Your task to perform on an android device: move an email to a new category in the gmail app Image 0: 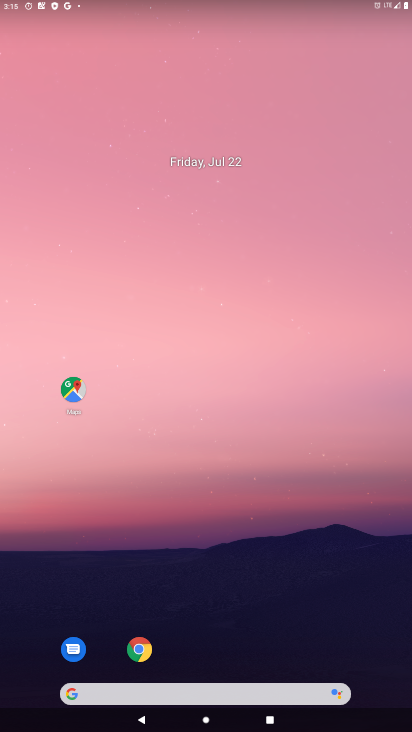
Step 0: drag from (335, 500) to (331, 27)
Your task to perform on an android device: move an email to a new category in the gmail app Image 1: 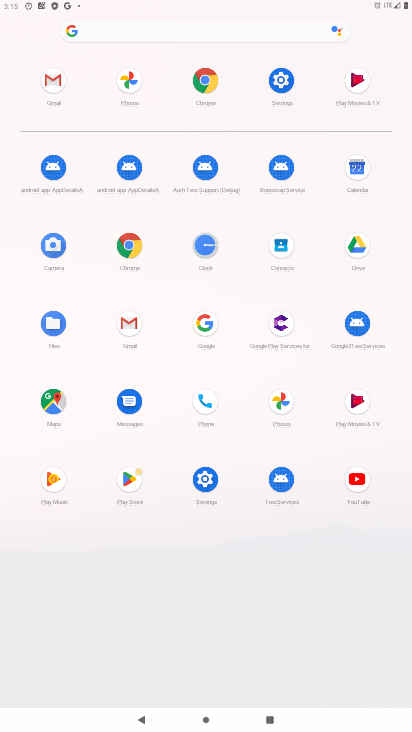
Step 1: click (57, 84)
Your task to perform on an android device: move an email to a new category in the gmail app Image 2: 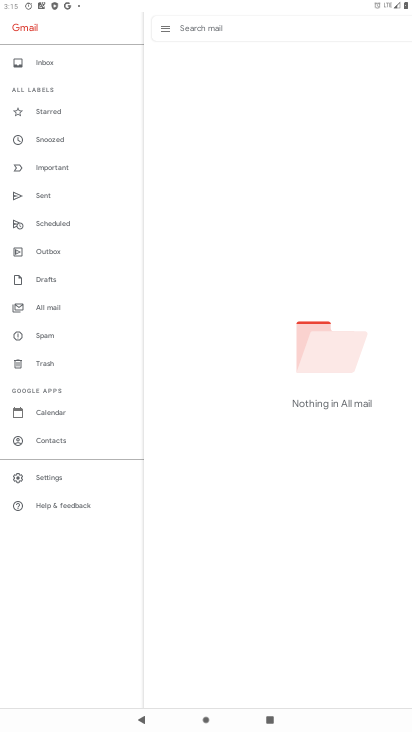
Step 2: task complete